Your task to perform on an android device: snooze an email in the gmail app Image 0: 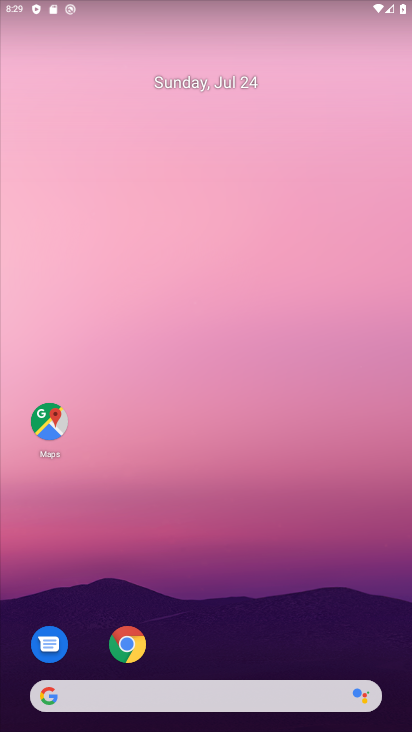
Step 0: drag from (273, 661) to (279, 124)
Your task to perform on an android device: snooze an email in the gmail app Image 1: 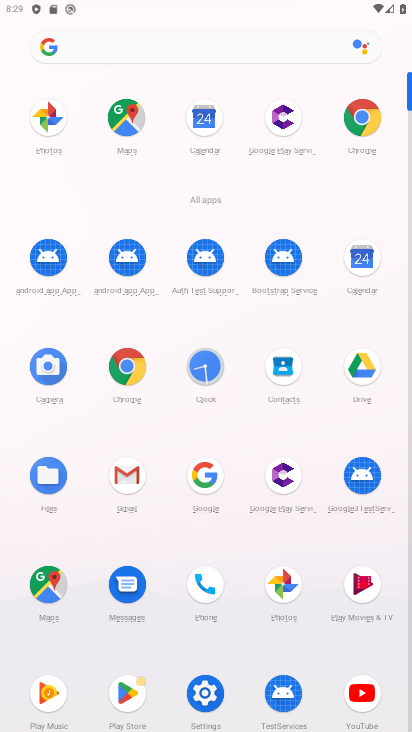
Step 1: click (129, 471)
Your task to perform on an android device: snooze an email in the gmail app Image 2: 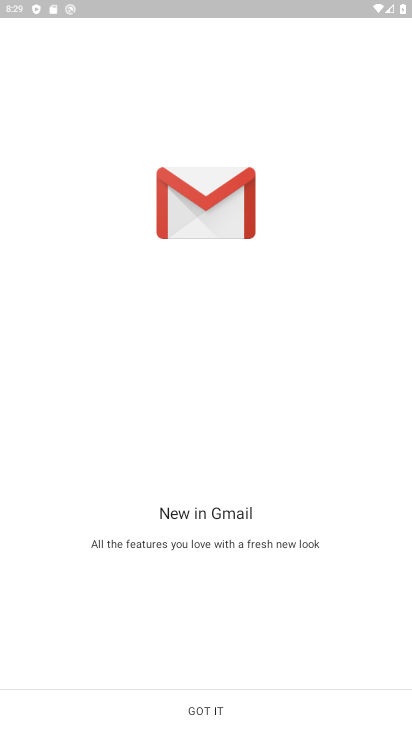
Step 2: click (219, 718)
Your task to perform on an android device: snooze an email in the gmail app Image 3: 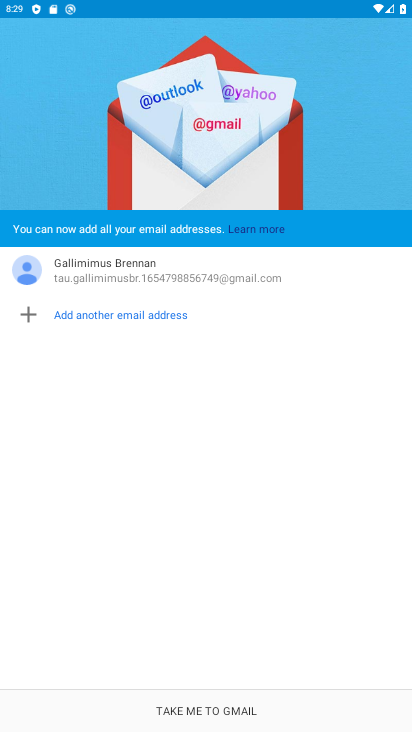
Step 3: click (219, 718)
Your task to perform on an android device: snooze an email in the gmail app Image 4: 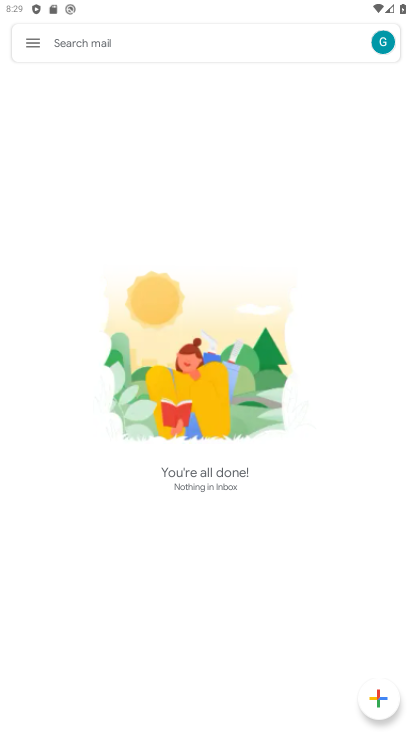
Step 4: click (25, 41)
Your task to perform on an android device: snooze an email in the gmail app Image 5: 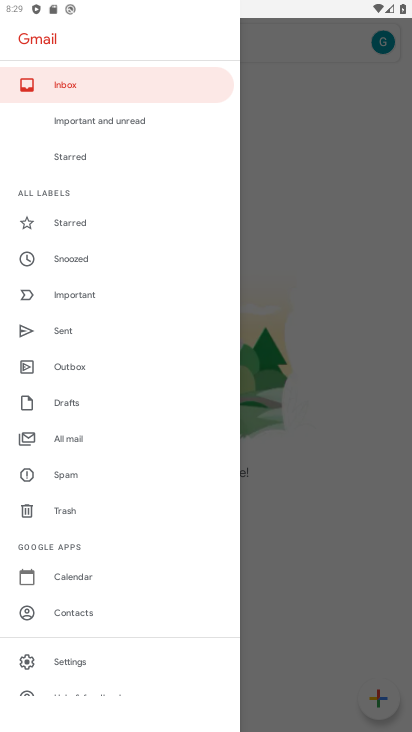
Step 5: click (317, 234)
Your task to perform on an android device: snooze an email in the gmail app Image 6: 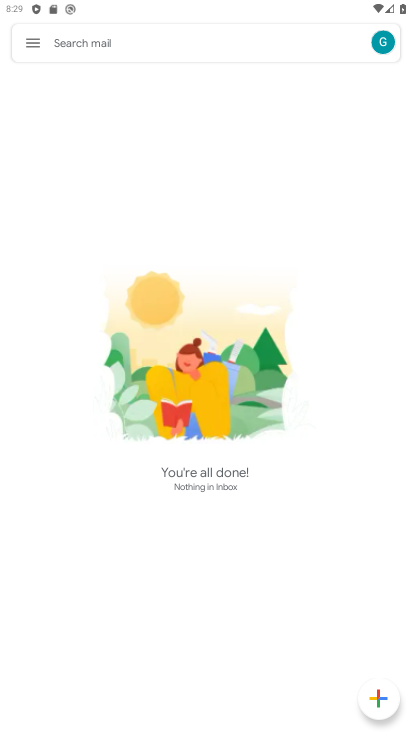
Step 6: task complete